Your task to perform on an android device: Go to Android settings Image 0: 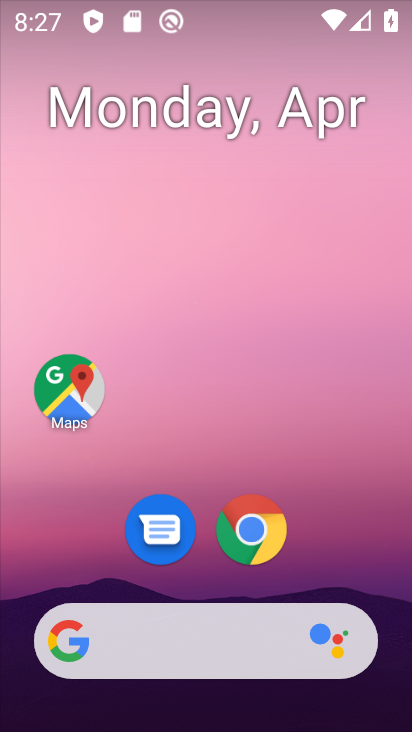
Step 0: drag from (355, 525) to (360, 188)
Your task to perform on an android device: Go to Android settings Image 1: 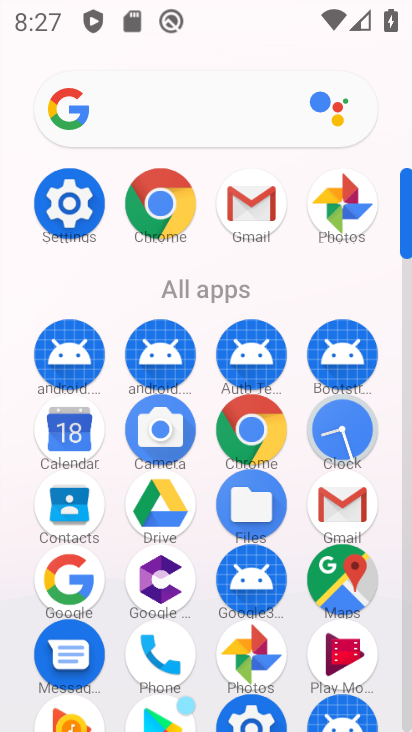
Step 1: drag from (203, 624) to (203, 335)
Your task to perform on an android device: Go to Android settings Image 2: 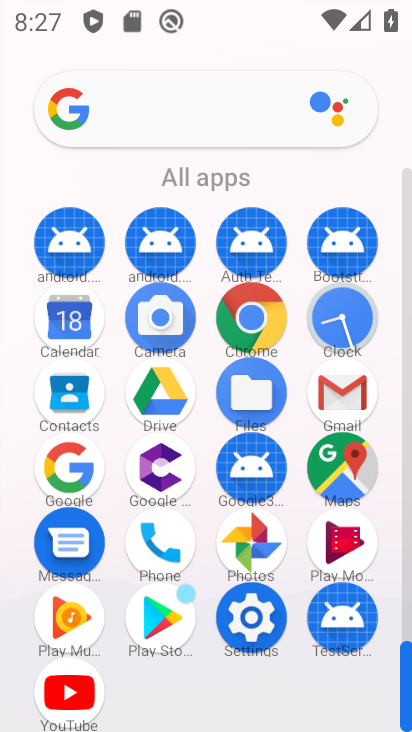
Step 2: click (255, 621)
Your task to perform on an android device: Go to Android settings Image 3: 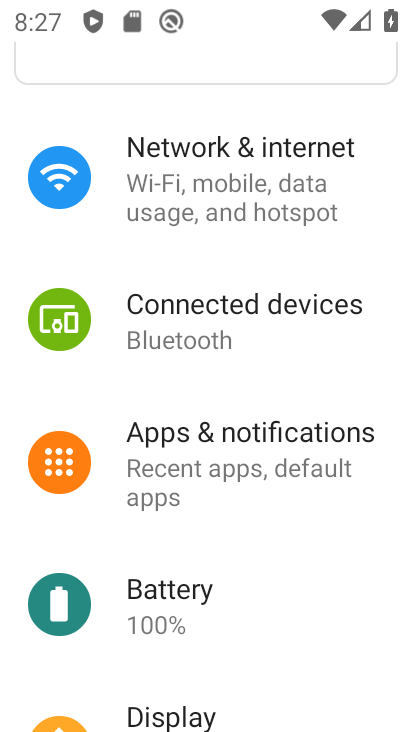
Step 3: drag from (295, 611) to (300, 293)
Your task to perform on an android device: Go to Android settings Image 4: 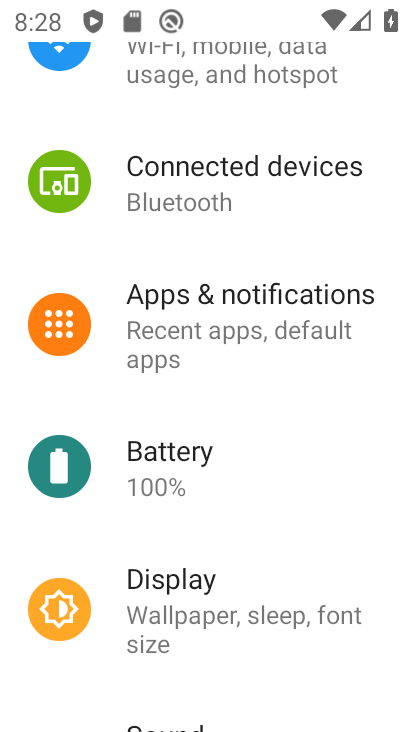
Step 4: drag from (291, 499) to (303, 263)
Your task to perform on an android device: Go to Android settings Image 5: 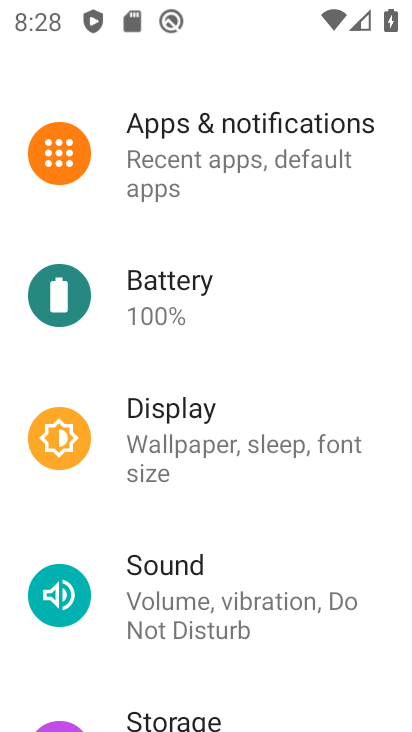
Step 5: drag from (282, 637) to (299, 333)
Your task to perform on an android device: Go to Android settings Image 6: 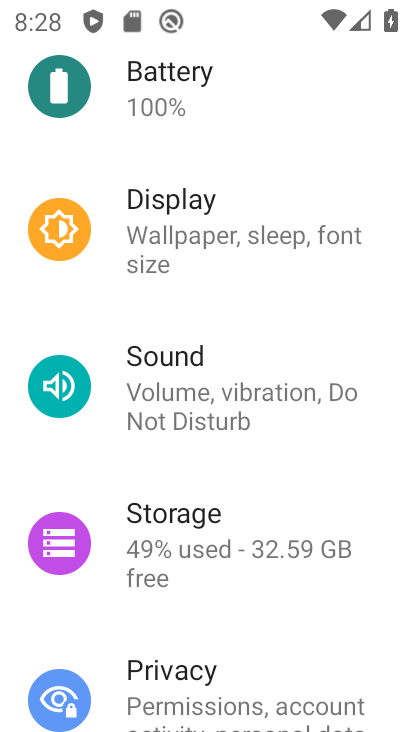
Step 6: drag from (297, 663) to (283, 260)
Your task to perform on an android device: Go to Android settings Image 7: 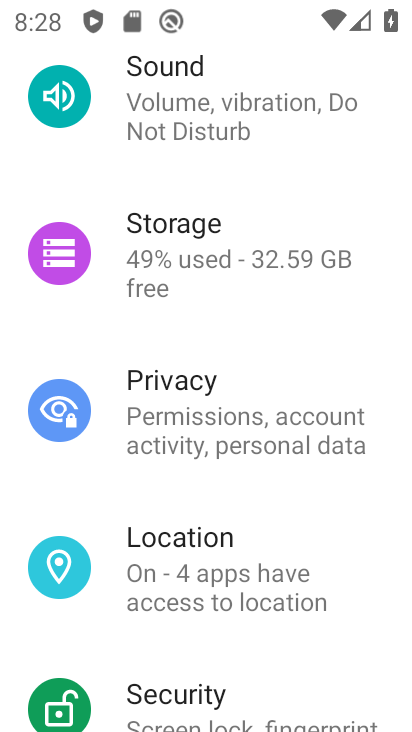
Step 7: drag from (289, 629) to (290, 204)
Your task to perform on an android device: Go to Android settings Image 8: 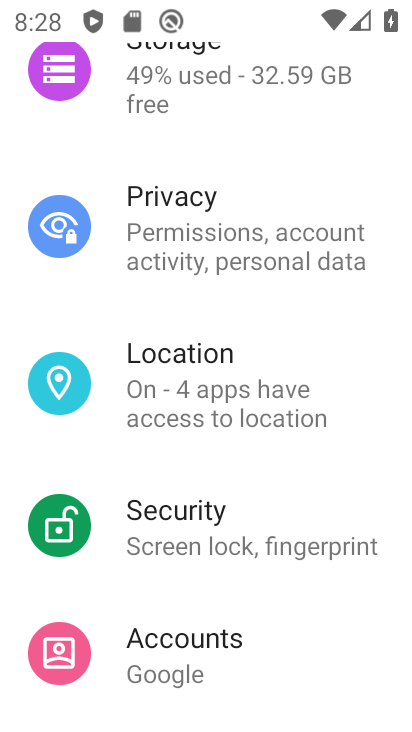
Step 8: drag from (290, 656) to (280, 155)
Your task to perform on an android device: Go to Android settings Image 9: 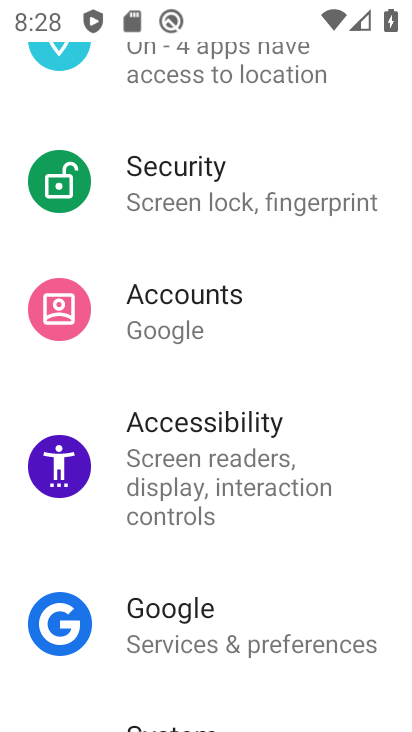
Step 9: drag from (280, 699) to (290, 158)
Your task to perform on an android device: Go to Android settings Image 10: 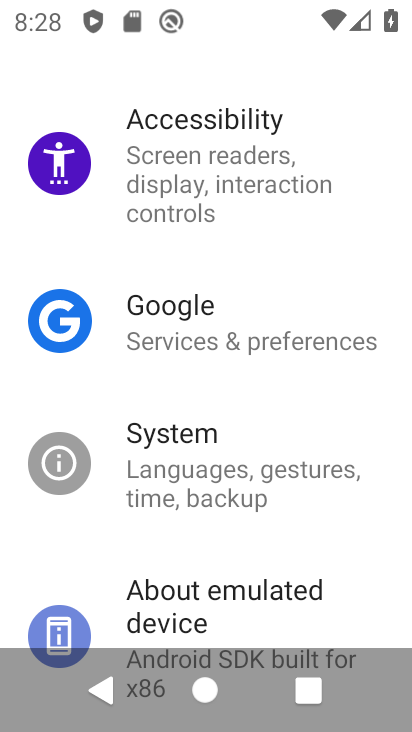
Step 10: click (234, 601)
Your task to perform on an android device: Go to Android settings Image 11: 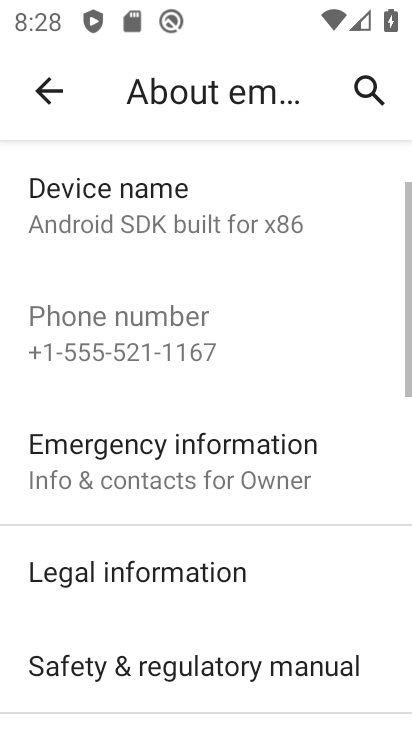
Step 11: task complete